Your task to perform on an android device: Open settings on Google Maps Image 0: 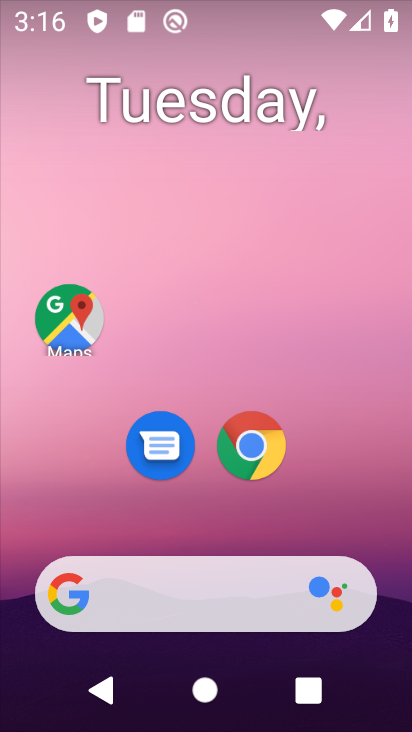
Step 0: click (64, 349)
Your task to perform on an android device: Open settings on Google Maps Image 1: 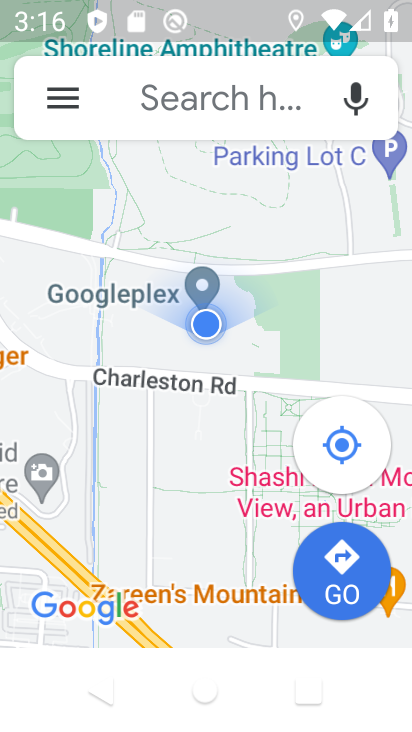
Step 1: click (36, 93)
Your task to perform on an android device: Open settings on Google Maps Image 2: 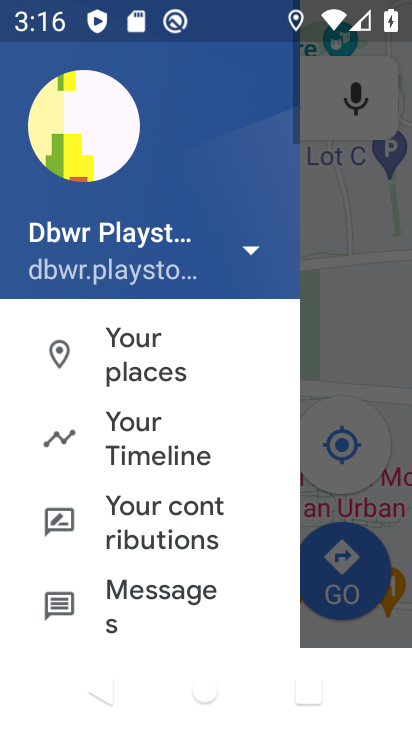
Step 2: drag from (127, 526) to (113, 67)
Your task to perform on an android device: Open settings on Google Maps Image 3: 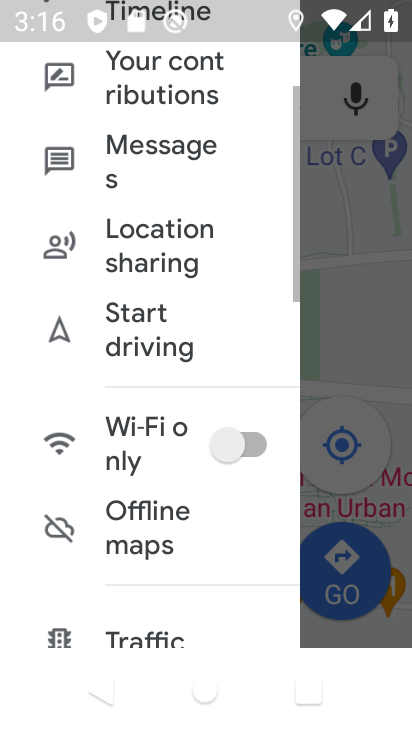
Step 3: drag from (196, 595) to (176, 98)
Your task to perform on an android device: Open settings on Google Maps Image 4: 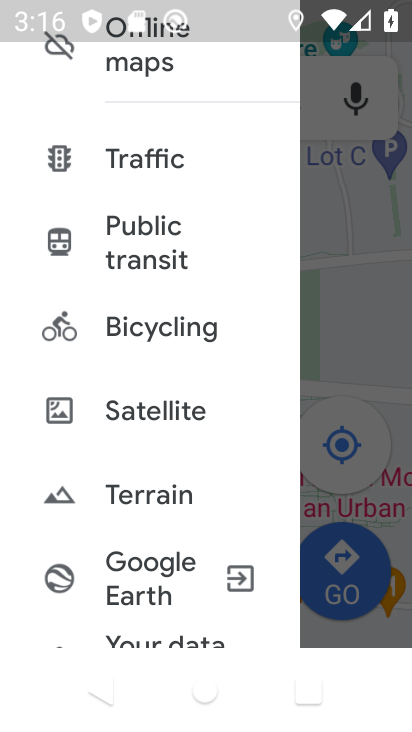
Step 4: drag from (191, 508) to (175, 31)
Your task to perform on an android device: Open settings on Google Maps Image 5: 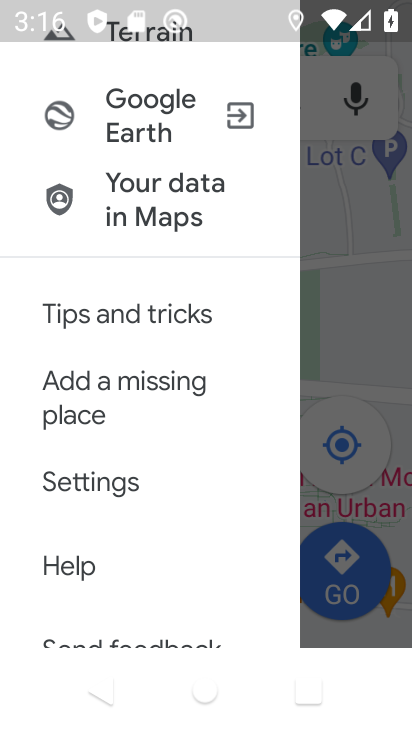
Step 5: click (138, 477)
Your task to perform on an android device: Open settings on Google Maps Image 6: 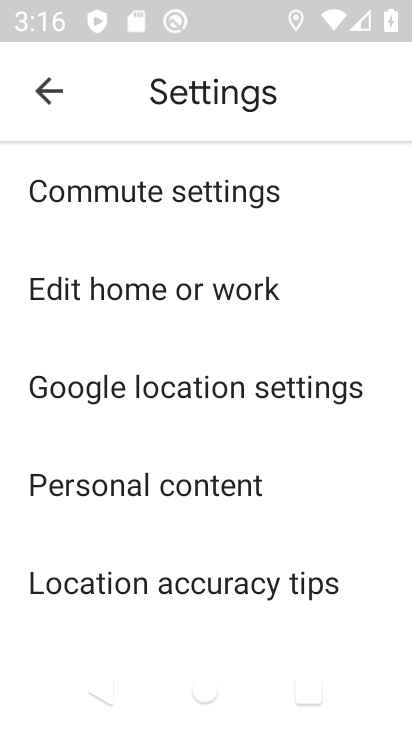
Step 6: task complete